Your task to perform on an android device: Open the map Image 0: 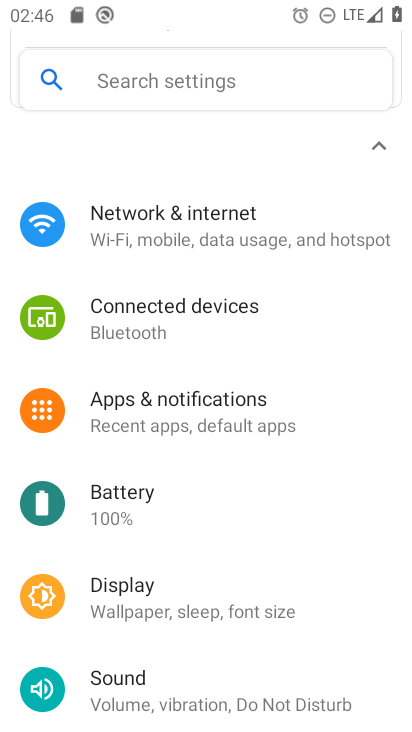
Step 0: press home button
Your task to perform on an android device: Open the map Image 1: 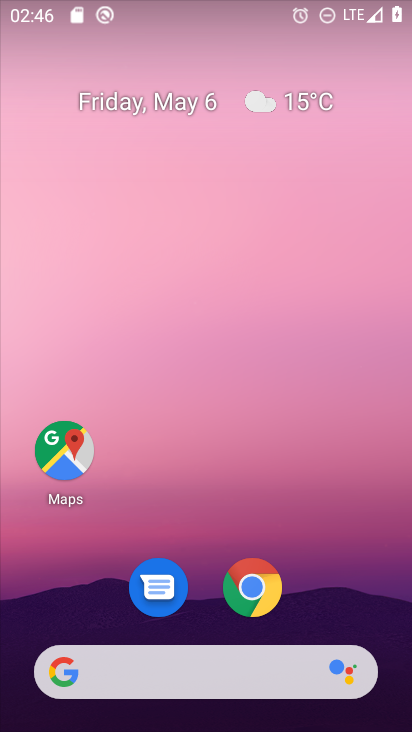
Step 1: click (66, 458)
Your task to perform on an android device: Open the map Image 2: 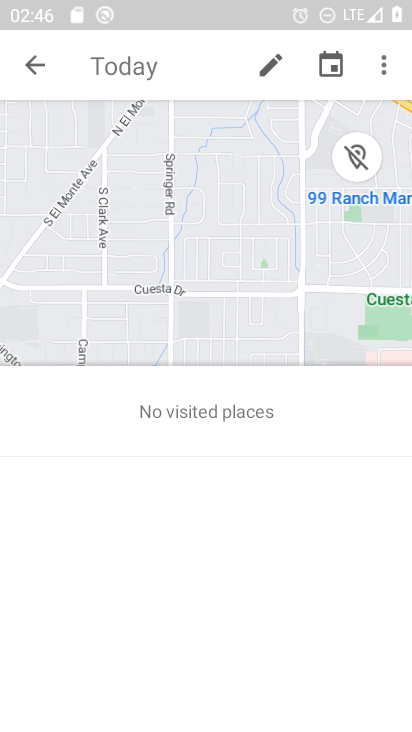
Step 2: task complete